Your task to perform on an android device: turn on improve location accuracy Image 0: 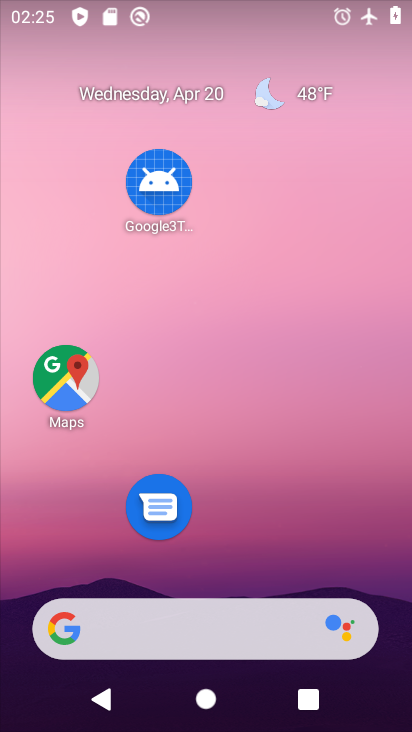
Step 0: drag from (260, 556) to (247, 47)
Your task to perform on an android device: turn on improve location accuracy Image 1: 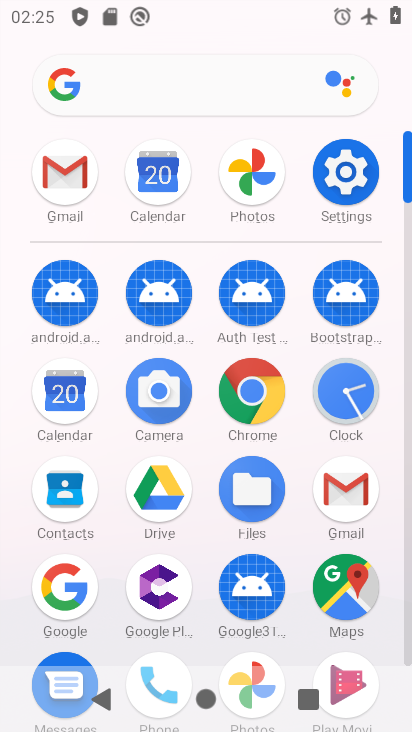
Step 1: click (343, 165)
Your task to perform on an android device: turn on improve location accuracy Image 2: 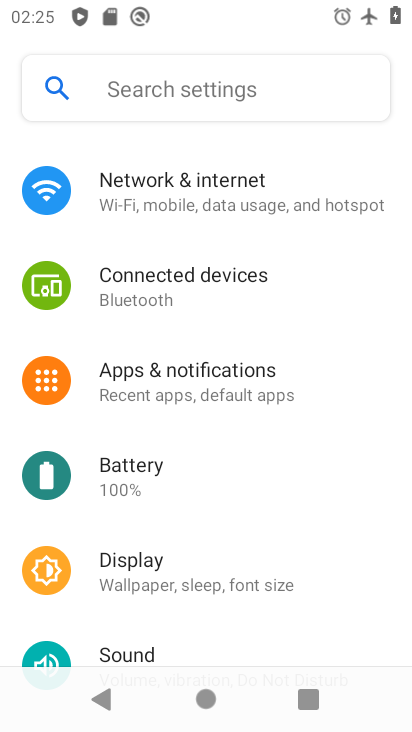
Step 2: drag from (197, 564) to (192, 60)
Your task to perform on an android device: turn on improve location accuracy Image 3: 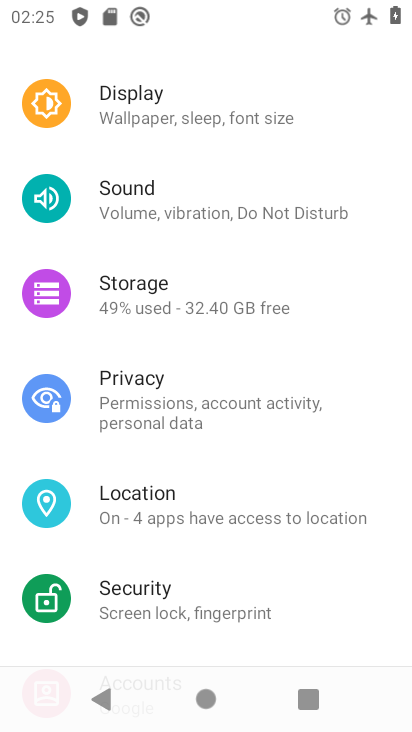
Step 3: click (154, 496)
Your task to perform on an android device: turn on improve location accuracy Image 4: 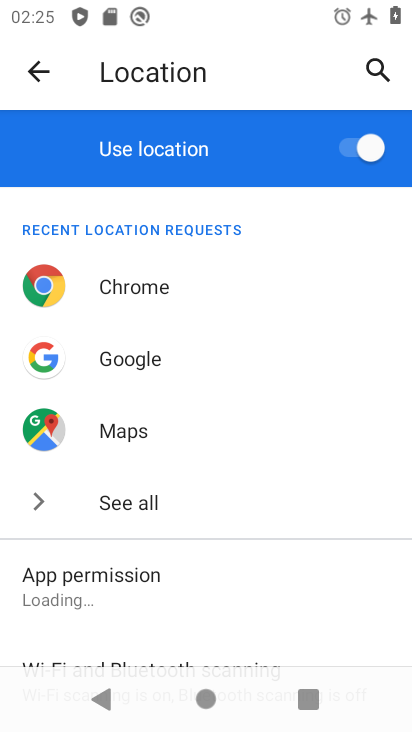
Step 4: drag from (133, 580) to (108, 226)
Your task to perform on an android device: turn on improve location accuracy Image 5: 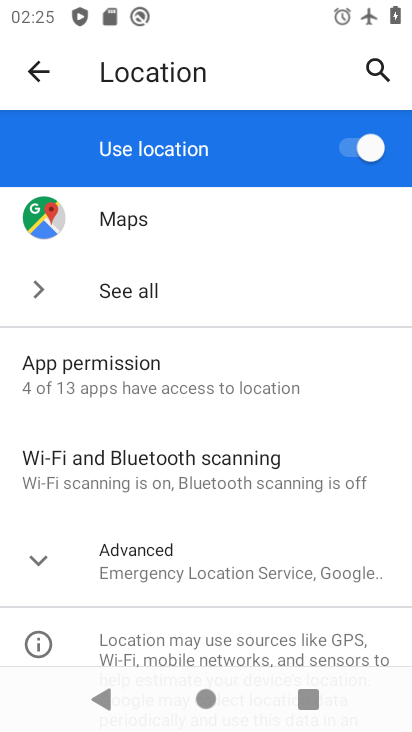
Step 5: click (97, 568)
Your task to perform on an android device: turn on improve location accuracy Image 6: 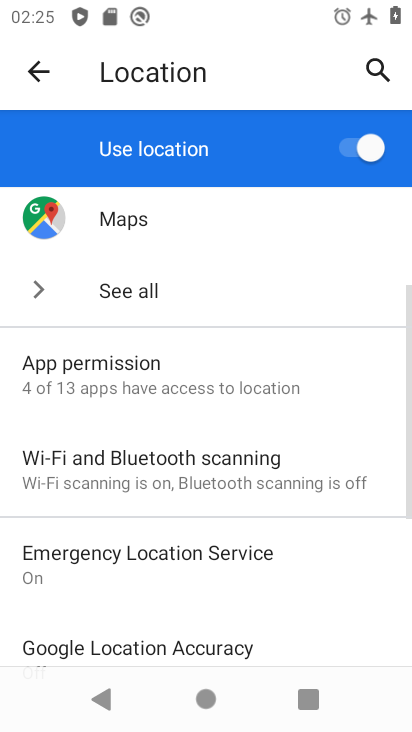
Step 6: drag from (116, 532) to (111, 160)
Your task to perform on an android device: turn on improve location accuracy Image 7: 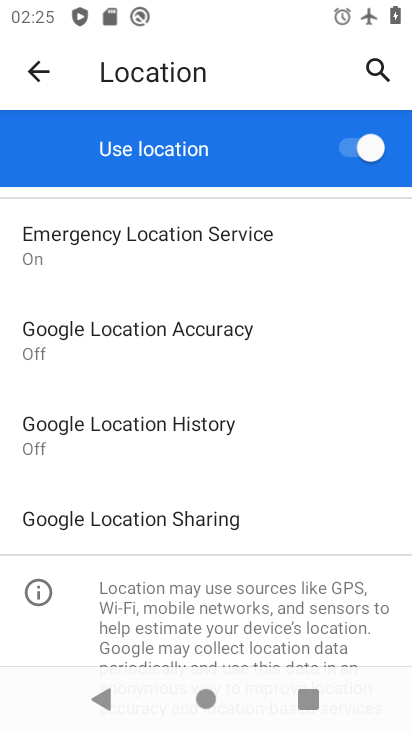
Step 7: click (117, 327)
Your task to perform on an android device: turn on improve location accuracy Image 8: 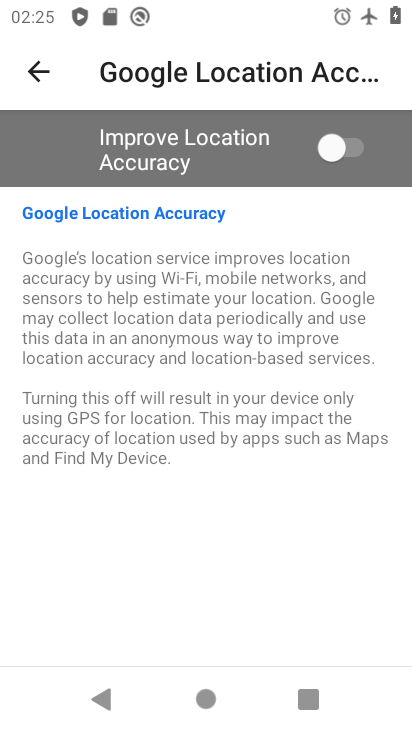
Step 8: click (333, 149)
Your task to perform on an android device: turn on improve location accuracy Image 9: 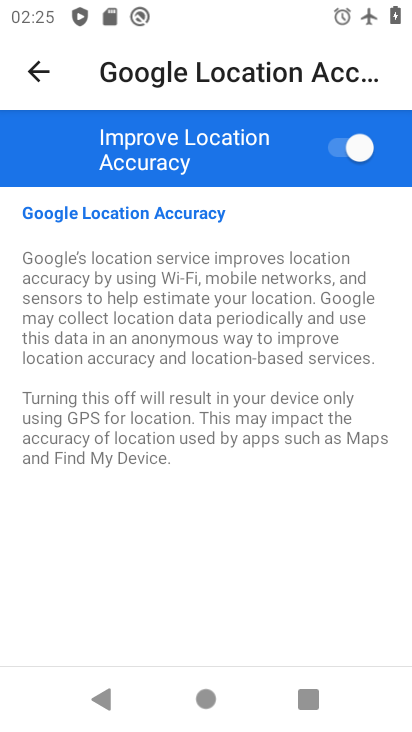
Step 9: task complete